Your task to perform on an android device: add a label to a message in the gmail app Image 0: 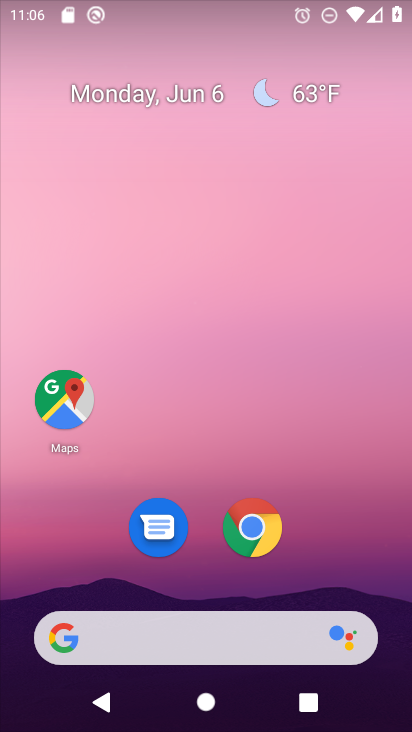
Step 0: drag from (366, 540) to (362, 114)
Your task to perform on an android device: add a label to a message in the gmail app Image 1: 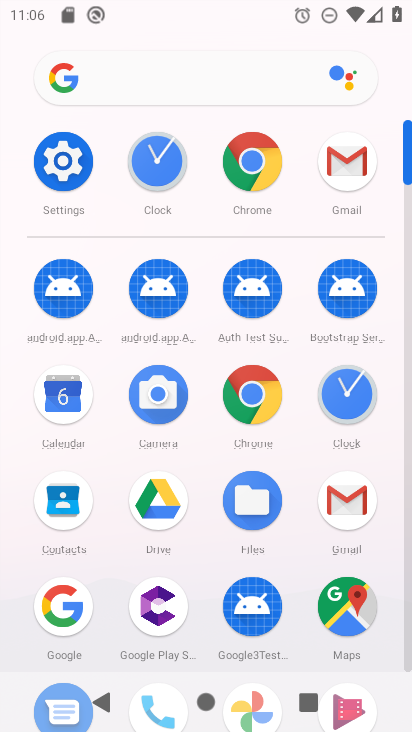
Step 1: click (357, 504)
Your task to perform on an android device: add a label to a message in the gmail app Image 2: 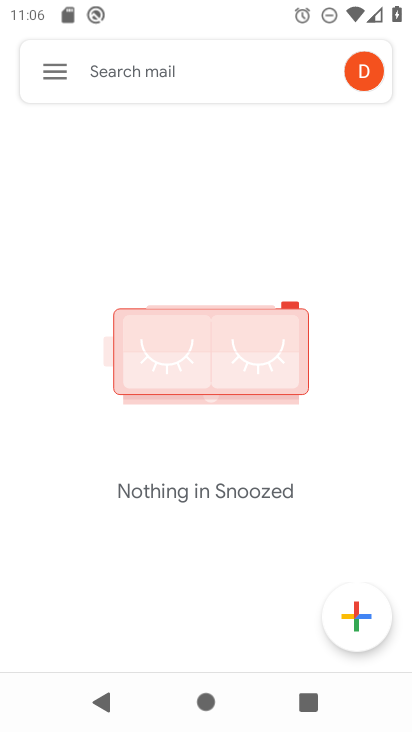
Step 2: click (73, 81)
Your task to perform on an android device: add a label to a message in the gmail app Image 3: 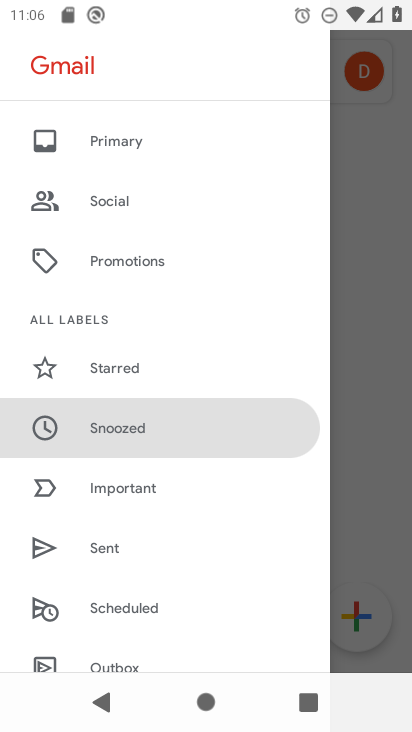
Step 3: drag from (267, 199) to (260, 344)
Your task to perform on an android device: add a label to a message in the gmail app Image 4: 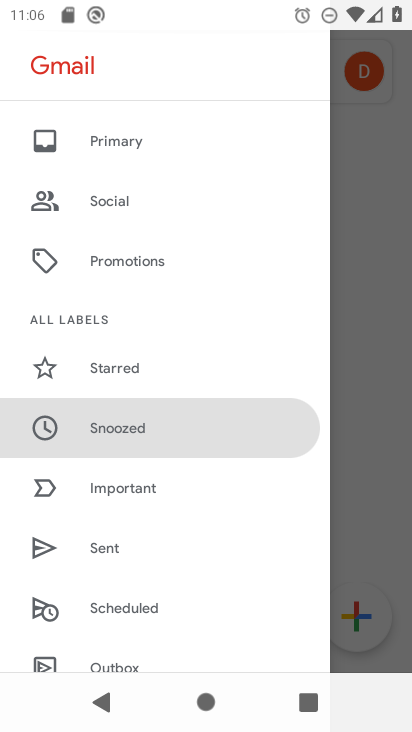
Step 4: click (199, 144)
Your task to perform on an android device: add a label to a message in the gmail app Image 5: 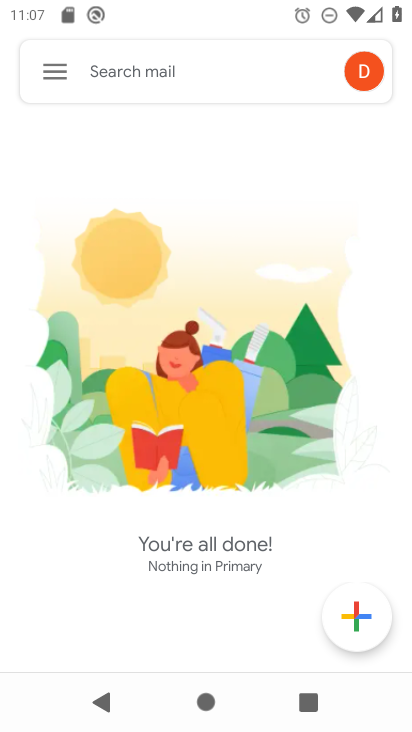
Step 5: task complete